Your task to perform on an android device: Search for "energizer triple a" on newegg, select the first entry, add it to the cart, then select checkout. Image 0: 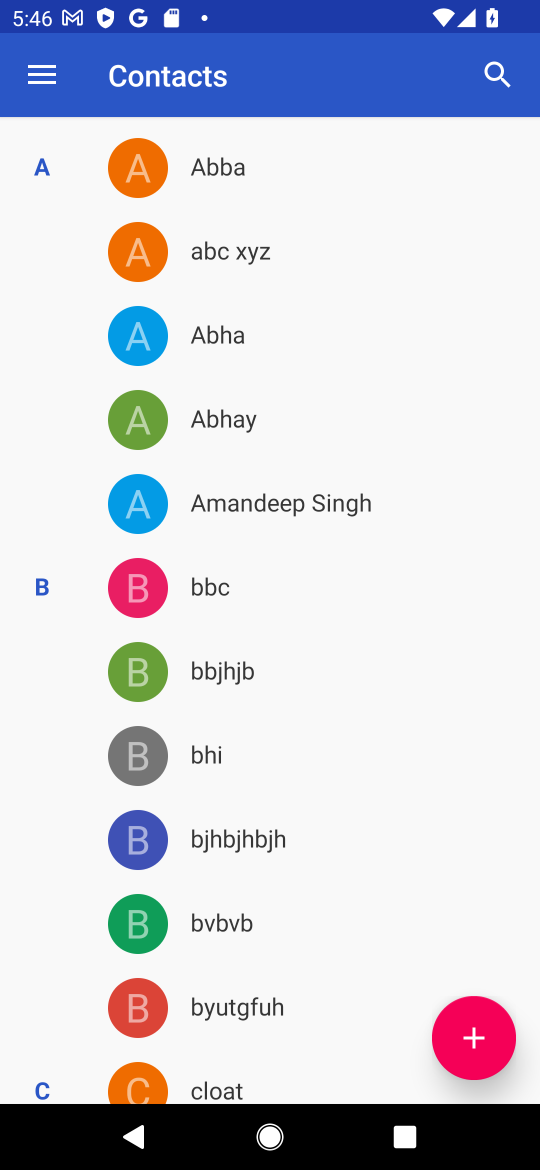
Step 0: task complete